Your task to perform on an android device: delete the emails in spam in the gmail app Image 0: 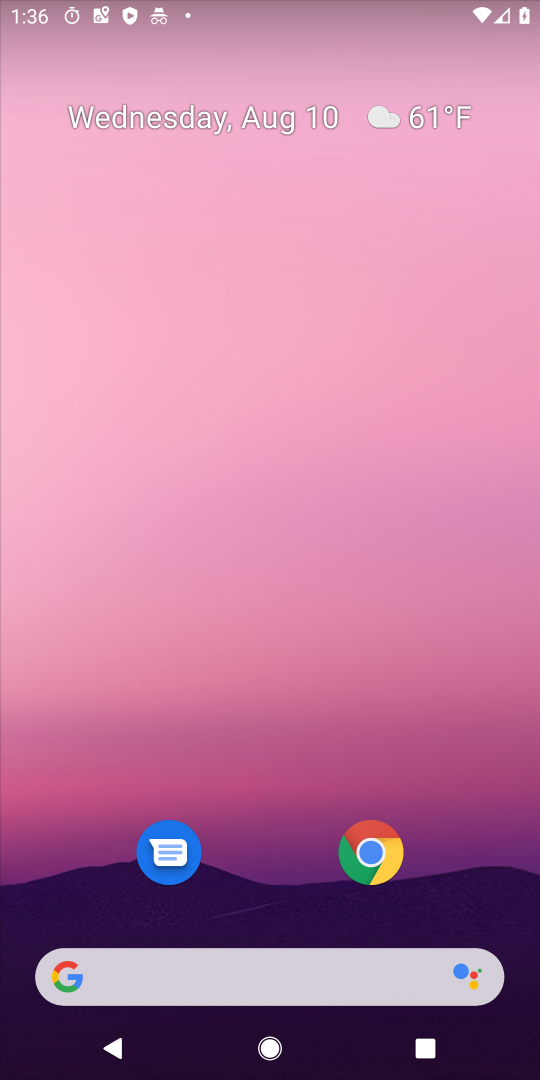
Step 0: drag from (252, 869) to (302, 108)
Your task to perform on an android device: delete the emails in spam in the gmail app Image 1: 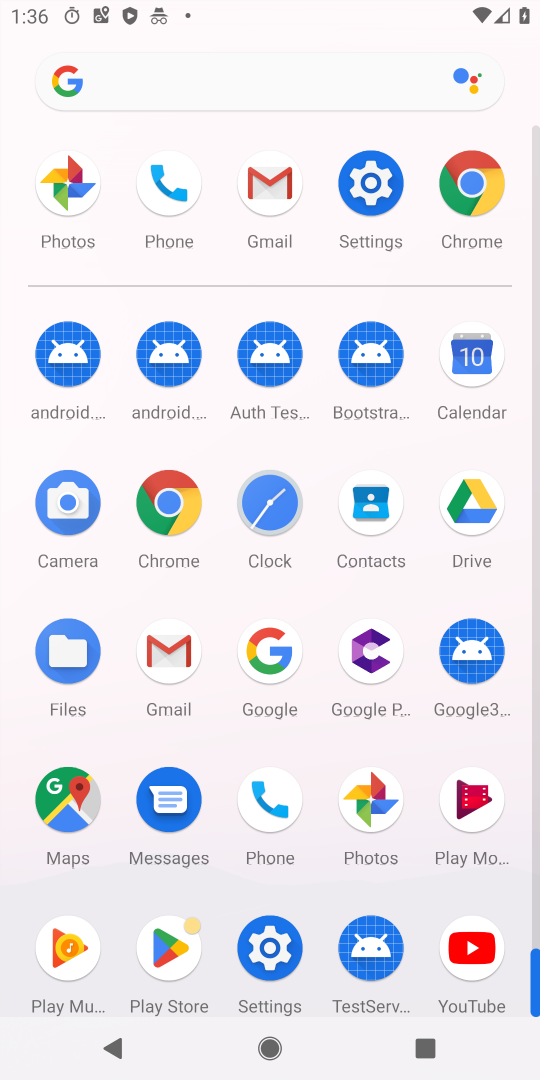
Step 1: click (164, 644)
Your task to perform on an android device: delete the emails in spam in the gmail app Image 2: 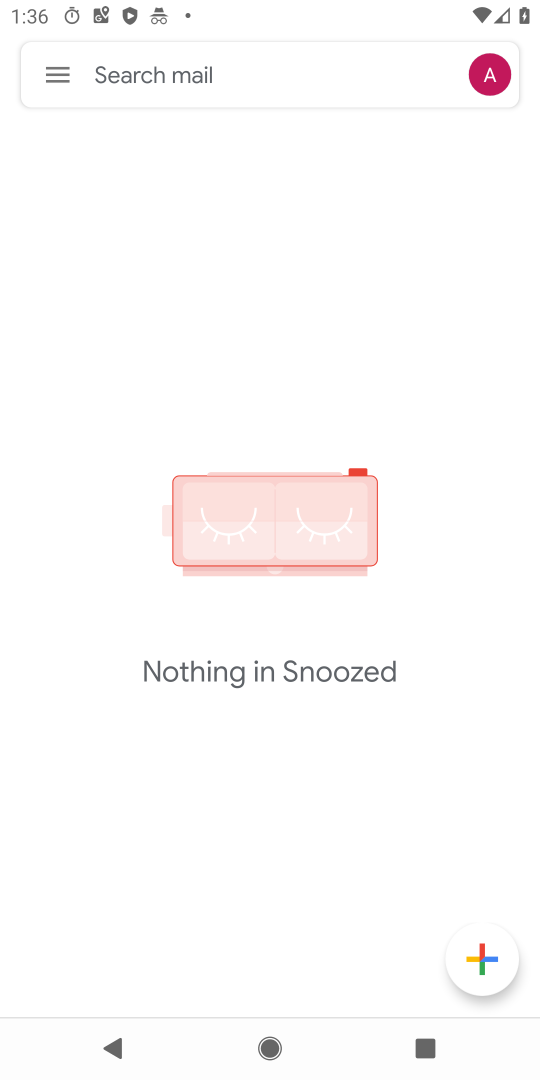
Step 2: click (54, 55)
Your task to perform on an android device: delete the emails in spam in the gmail app Image 3: 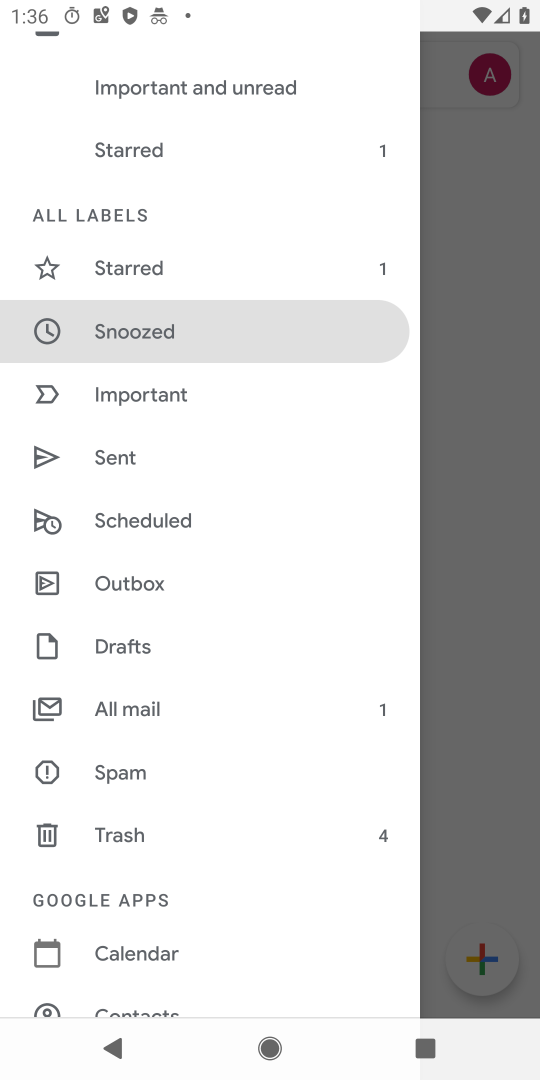
Step 3: click (170, 717)
Your task to perform on an android device: delete the emails in spam in the gmail app Image 4: 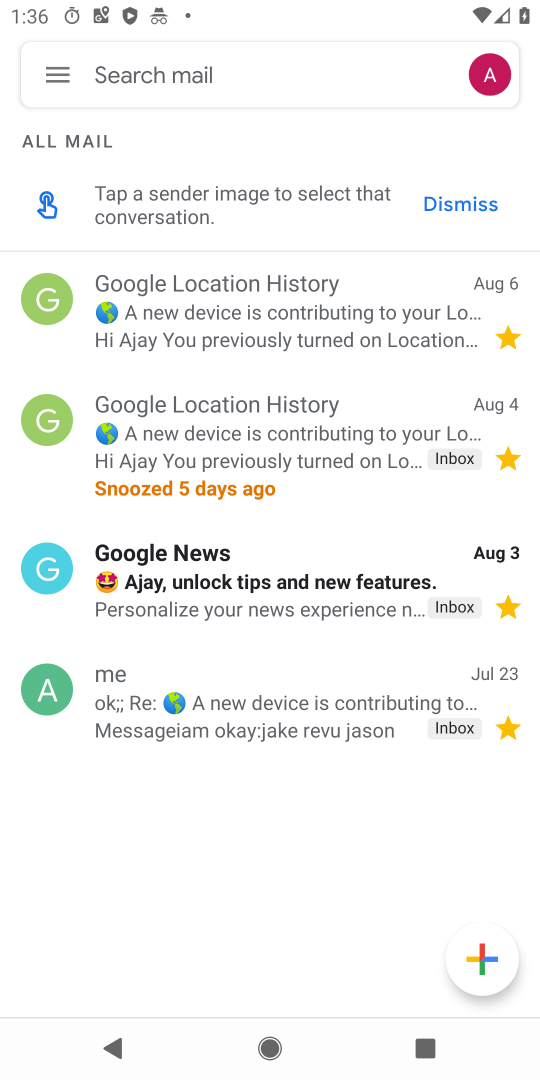
Step 4: click (61, 67)
Your task to perform on an android device: delete the emails in spam in the gmail app Image 5: 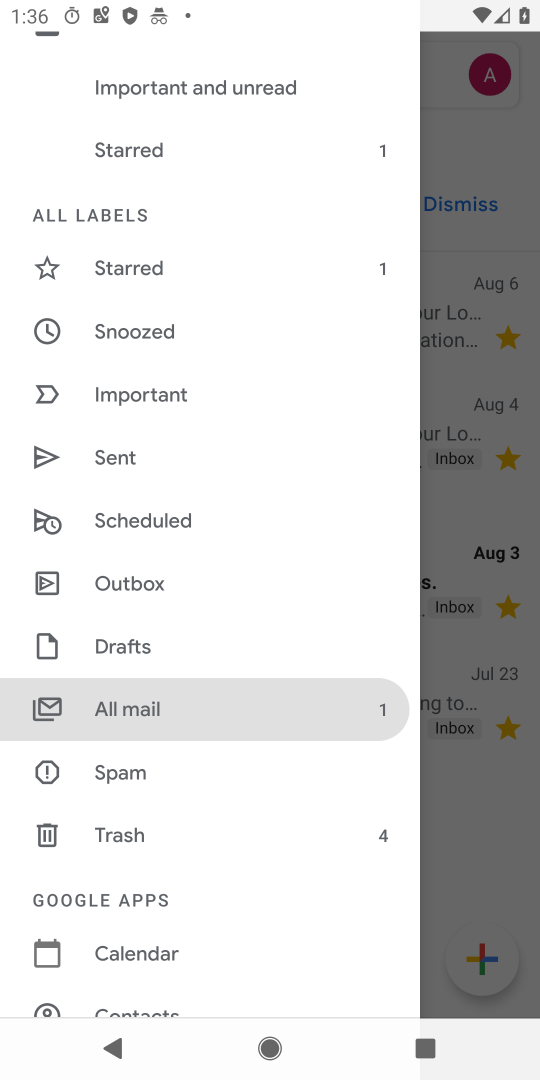
Step 5: click (132, 786)
Your task to perform on an android device: delete the emails in spam in the gmail app Image 6: 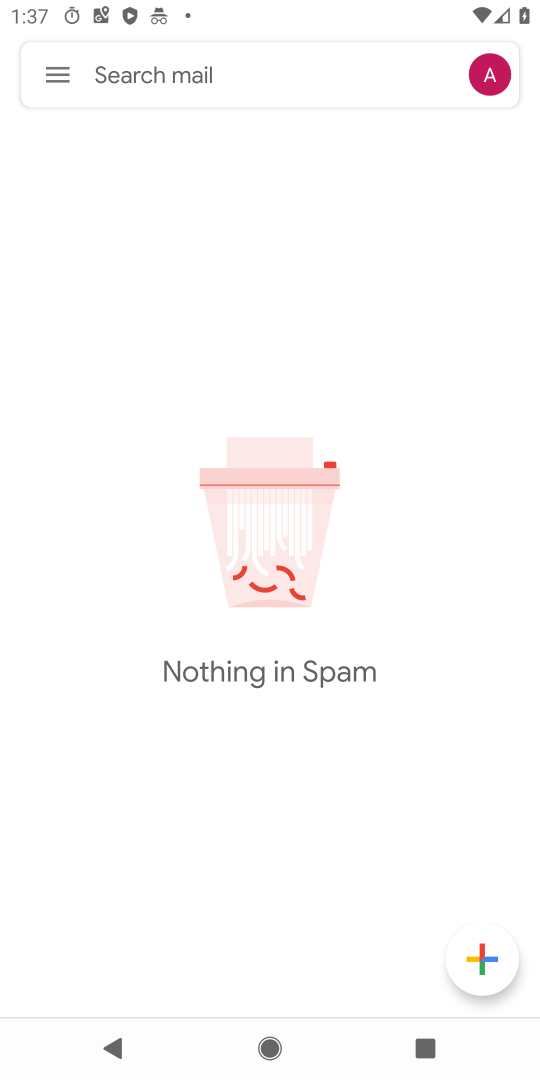
Step 6: task complete